Your task to perform on an android device: What's the weather today? Image 0: 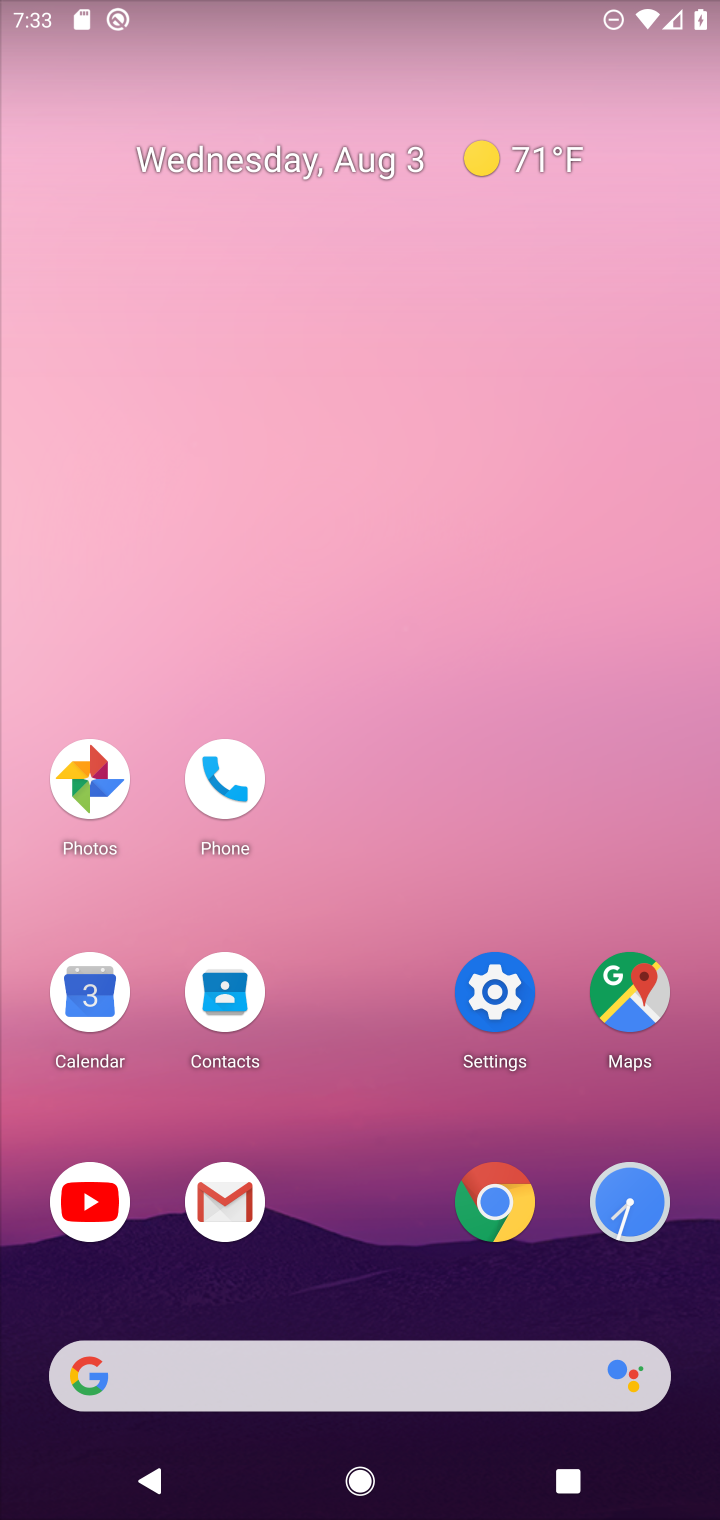
Step 0: press home button
Your task to perform on an android device: What's the weather today? Image 1: 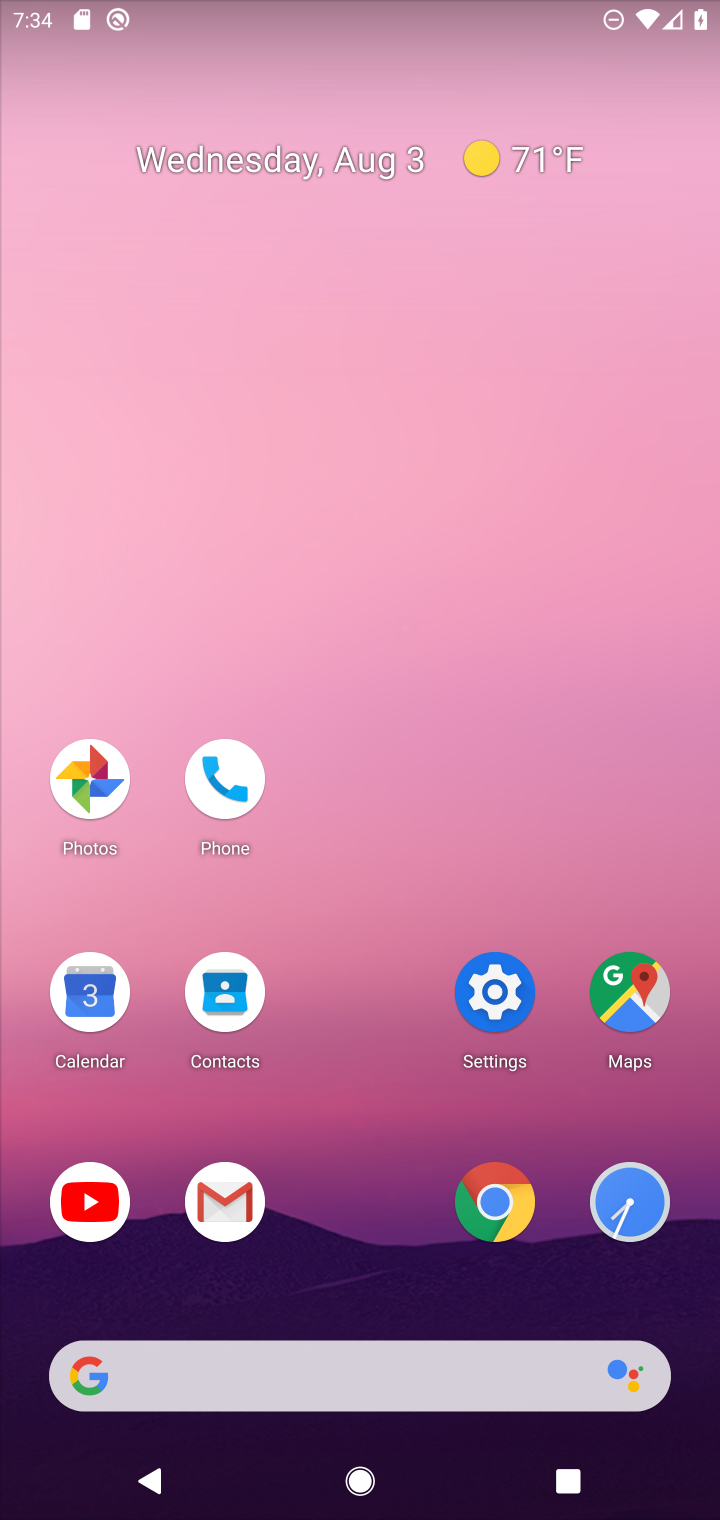
Step 1: click (345, 1375)
Your task to perform on an android device: What's the weather today? Image 2: 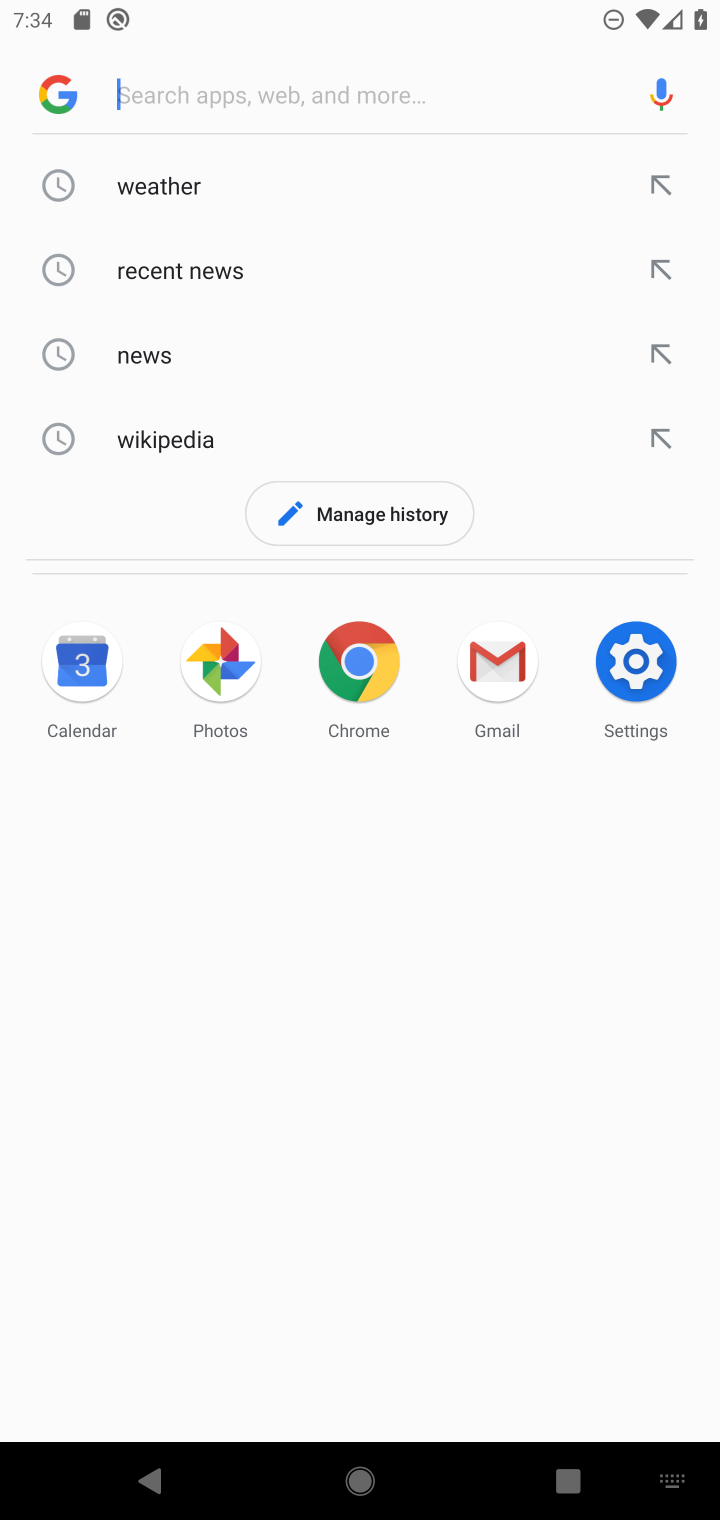
Step 2: click (160, 185)
Your task to perform on an android device: What's the weather today? Image 3: 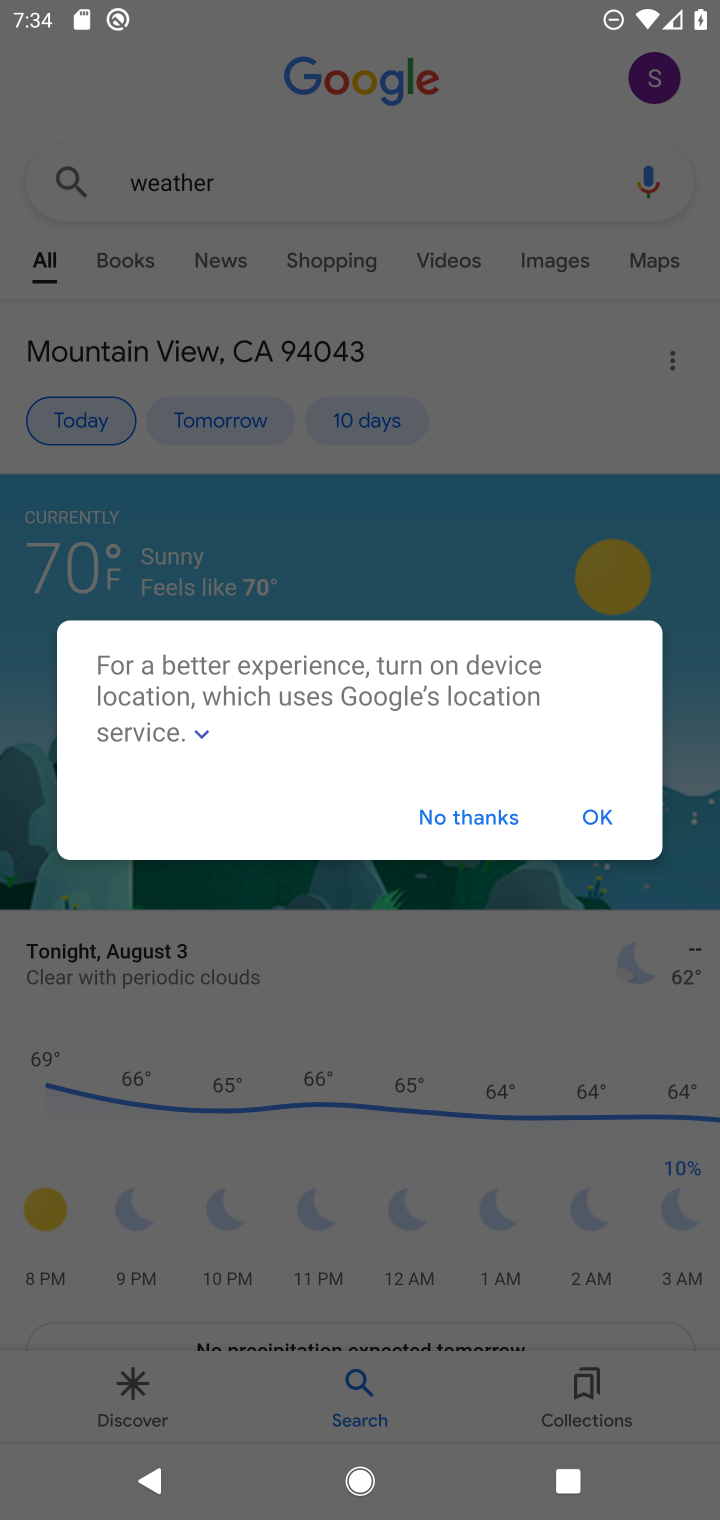
Step 3: click (605, 804)
Your task to perform on an android device: What's the weather today? Image 4: 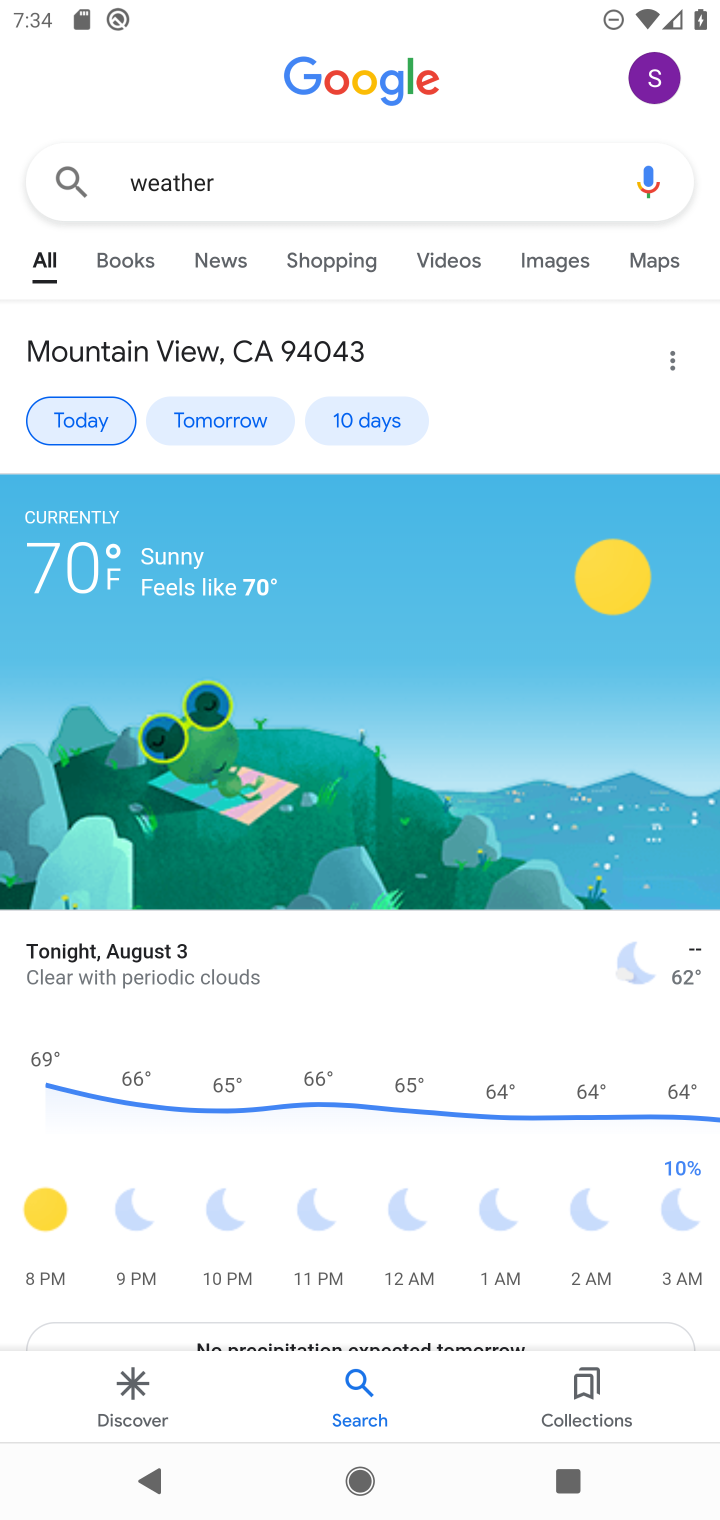
Step 4: task complete